Your task to perform on an android device: Go to Yahoo.com Image 0: 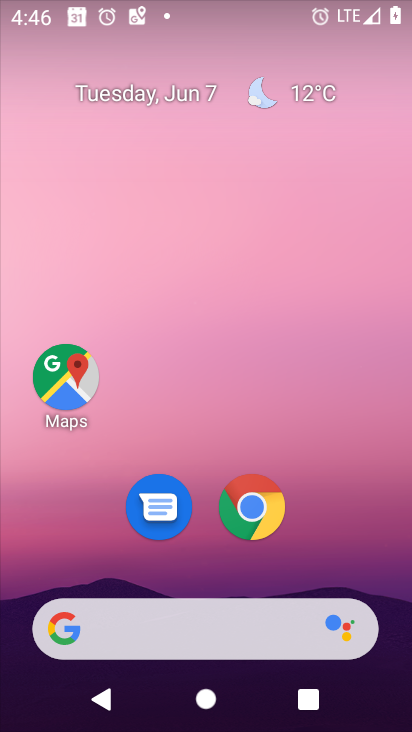
Step 0: drag from (330, 550) to (250, 12)
Your task to perform on an android device: Go to Yahoo.com Image 1: 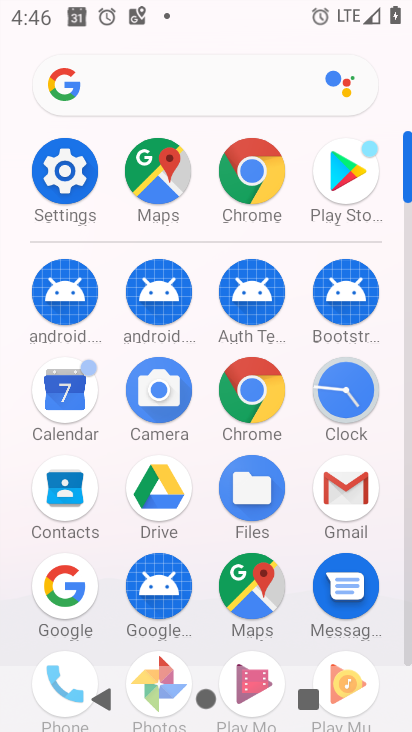
Step 1: drag from (5, 609) to (6, 259)
Your task to perform on an android device: Go to Yahoo.com Image 2: 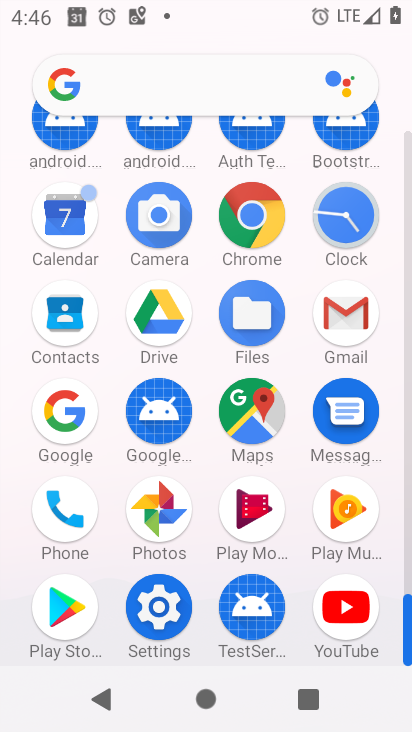
Step 2: click (248, 212)
Your task to perform on an android device: Go to Yahoo.com Image 3: 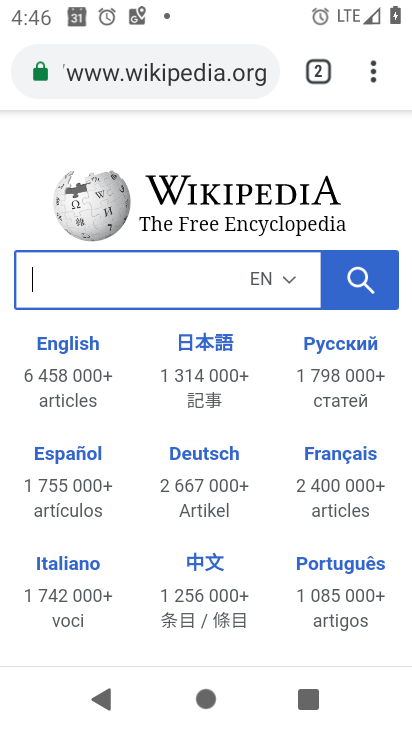
Step 3: click (182, 83)
Your task to perform on an android device: Go to Yahoo.com Image 4: 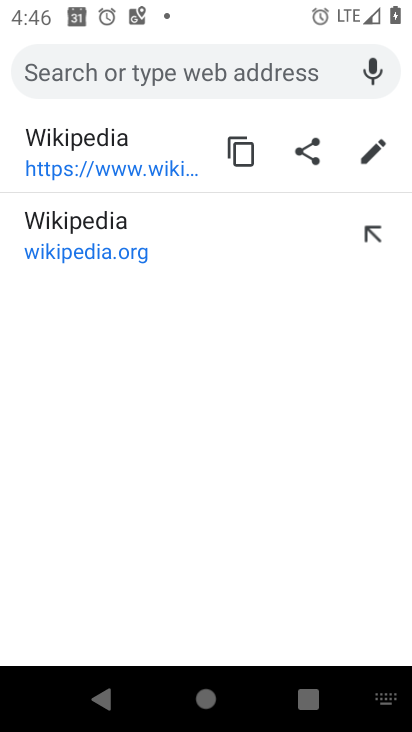
Step 4: type "Yahoo.com"
Your task to perform on an android device: Go to Yahoo.com Image 5: 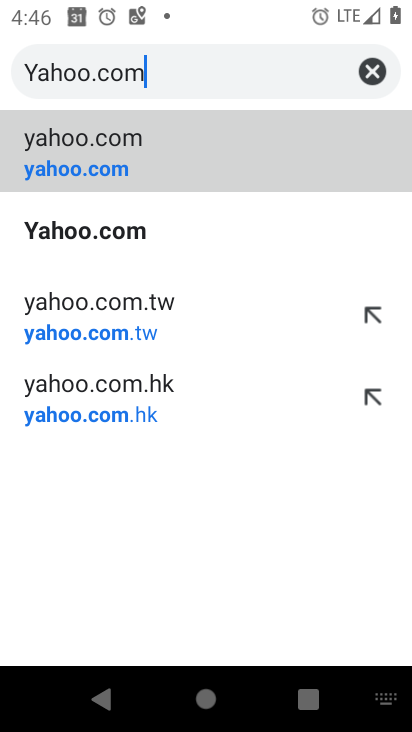
Step 5: type ""
Your task to perform on an android device: Go to Yahoo.com Image 6: 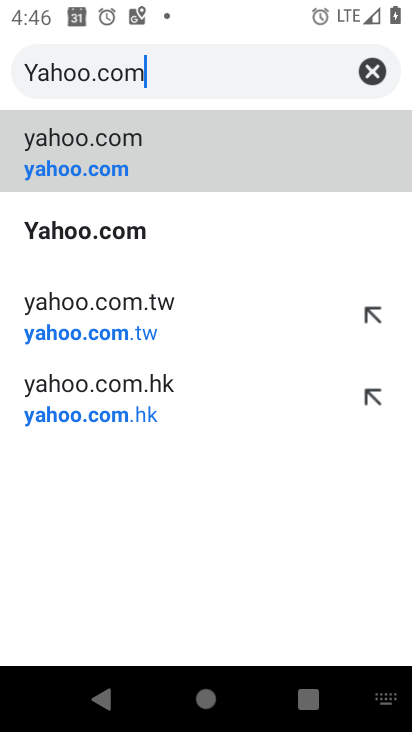
Step 6: click (196, 139)
Your task to perform on an android device: Go to Yahoo.com Image 7: 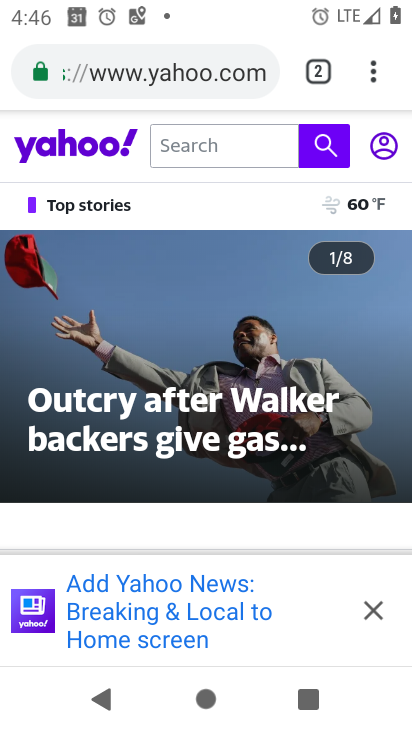
Step 7: click (365, 612)
Your task to perform on an android device: Go to Yahoo.com Image 8: 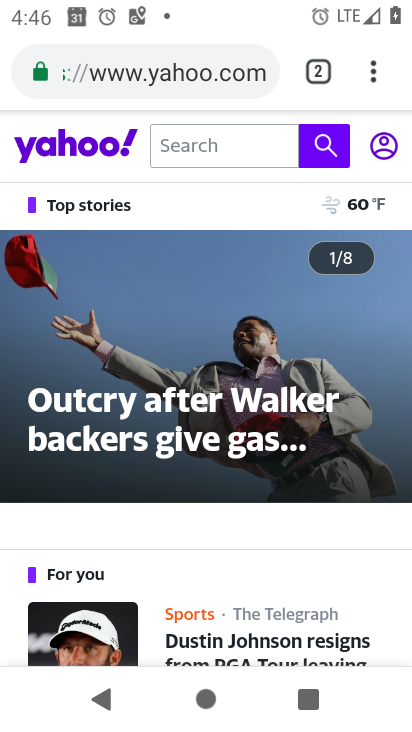
Step 8: task complete